Your task to perform on an android device: Open the map Image 0: 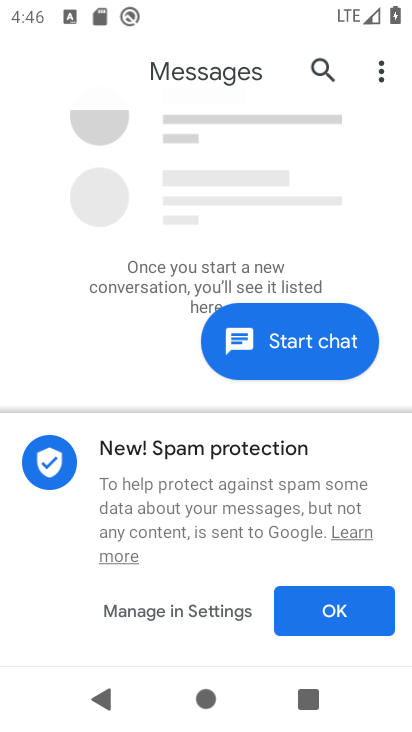
Step 0: press home button
Your task to perform on an android device: Open the map Image 1: 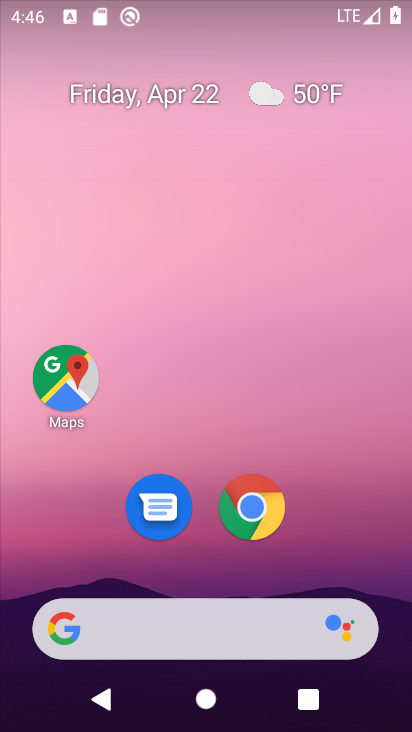
Step 1: click (58, 376)
Your task to perform on an android device: Open the map Image 2: 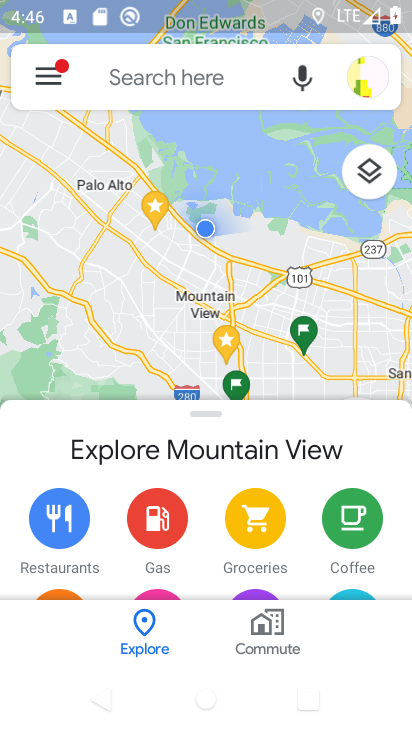
Step 2: task complete